Your task to perform on an android device: turn on showing notifications on the lock screen Image 0: 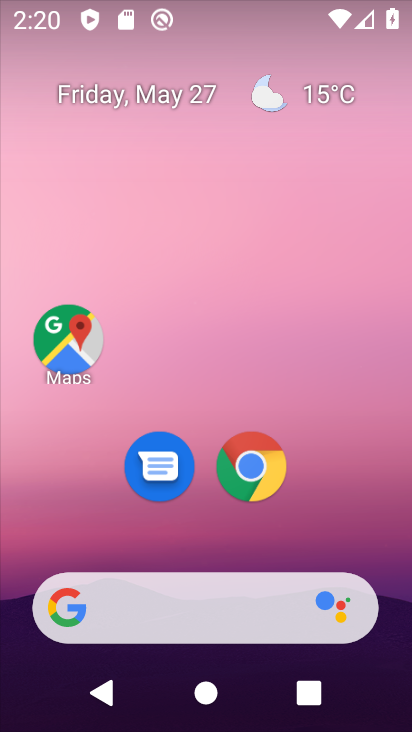
Step 0: drag from (368, 564) to (376, 176)
Your task to perform on an android device: turn on showing notifications on the lock screen Image 1: 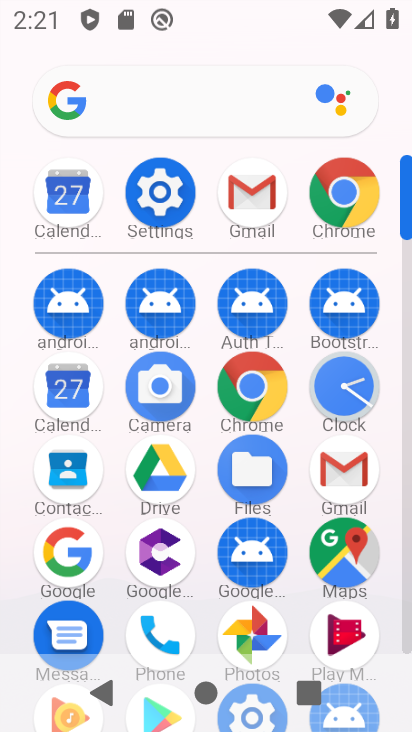
Step 1: click (173, 188)
Your task to perform on an android device: turn on showing notifications on the lock screen Image 2: 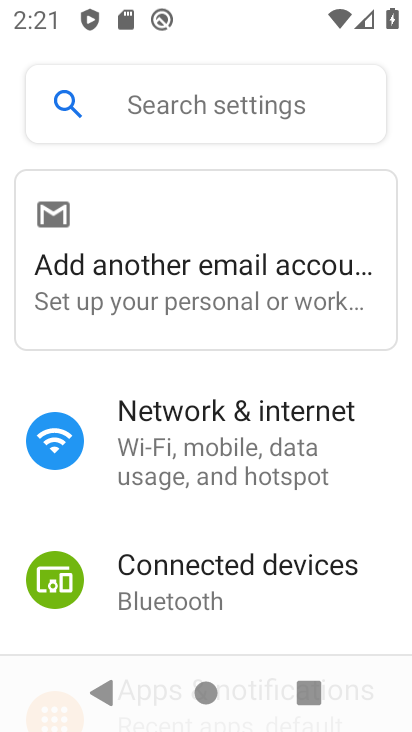
Step 2: drag from (232, 573) to (239, 370)
Your task to perform on an android device: turn on showing notifications on the lock screen Image 3: 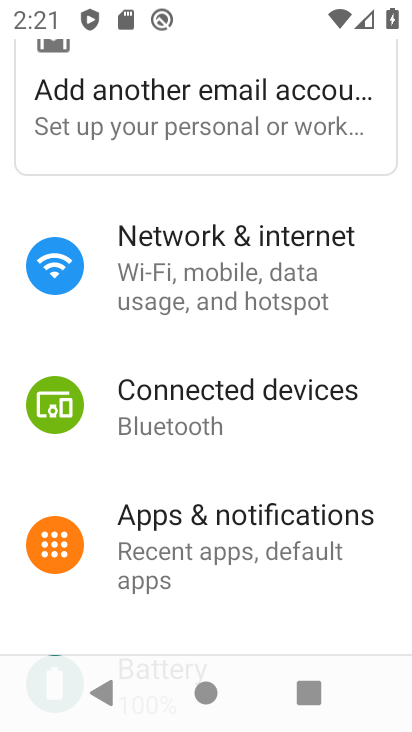
Step 3: click (201, 517)
Your task to perform on an android device: turn on showing notifications on the lock screen Image 4: 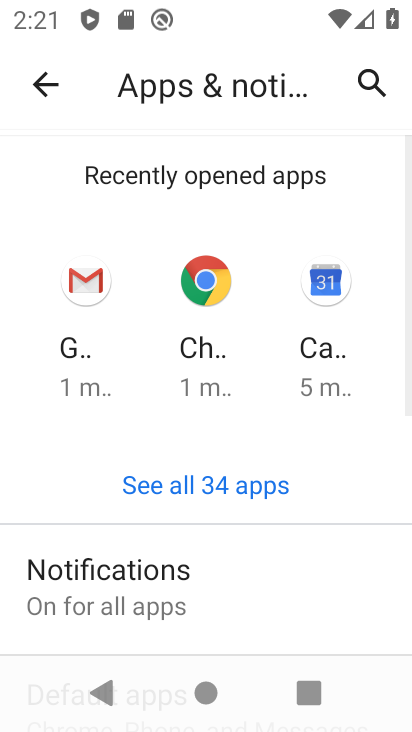
Step 4: click (164, 574)
Your task to perform on an android device: turn on showing notifications on the lock screen Image 5: 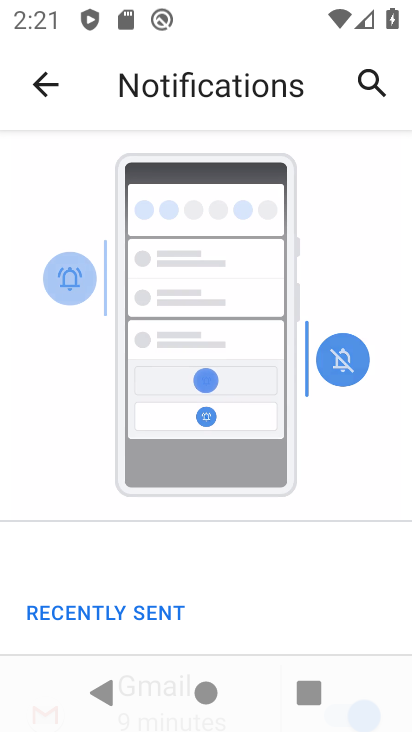
Step 5: drag from (190, 582) to (275, 201)
Your task to perform on an android device: turn on showing notifications on the lock screen Image 6: 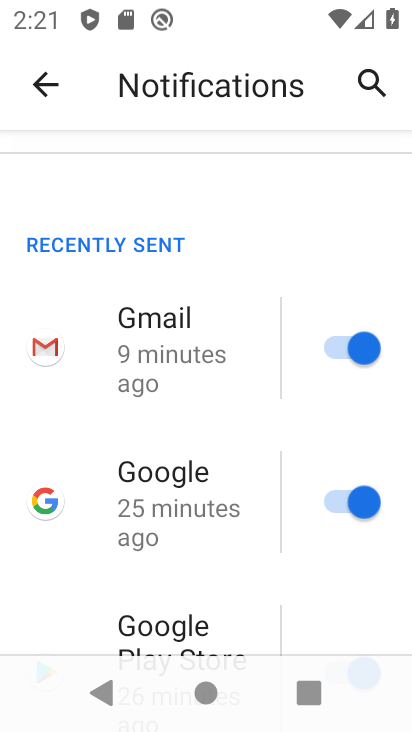
Step 6: drag from (124, 570) to (230, 250)
Your task to perform on an android device: turn on showing notifications on the lock screen Image 7: 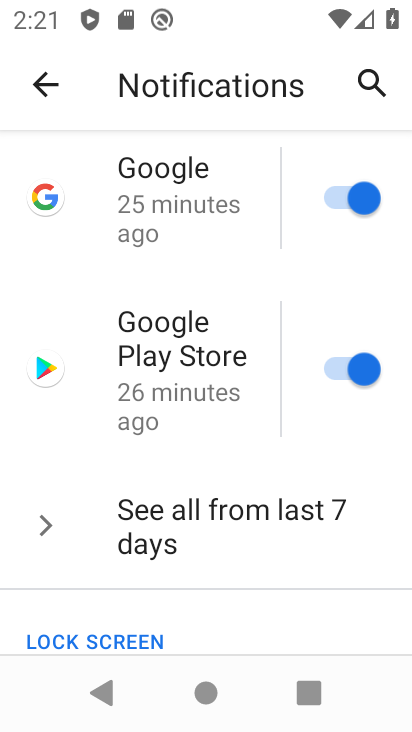
Step 7: drag from (115, 595) to (203, 289)
Your task to perform on an android device: turn on showing notifications on the lock screen Image 8: 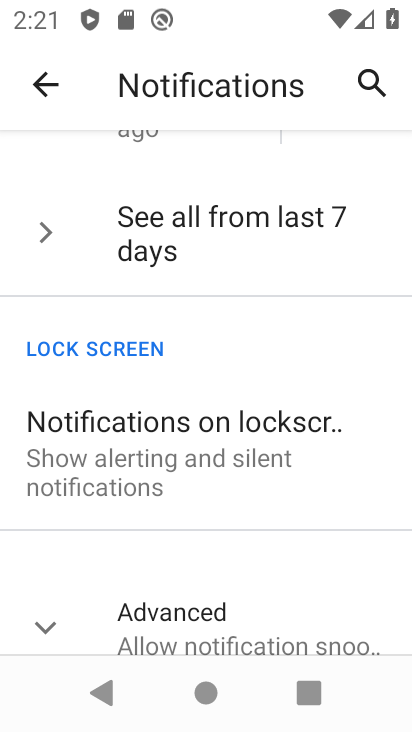
Step 8: click (179, 472)
Your task to perform on an android device: turn on showing notifications on the lock screen Image 9: 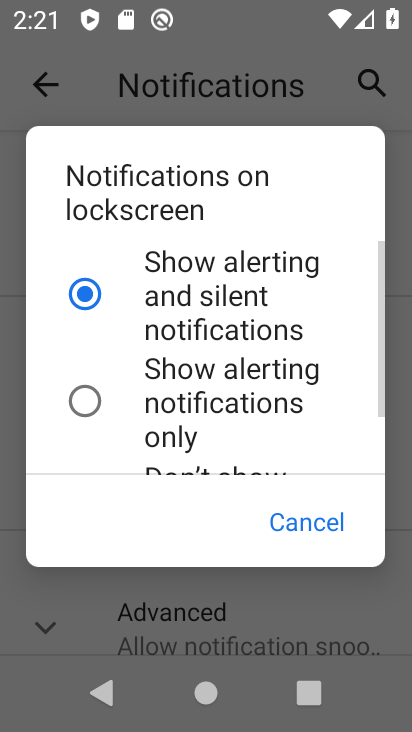
Step 9: task complete